Your task to perform on an android device: Go to eBay Image 0: 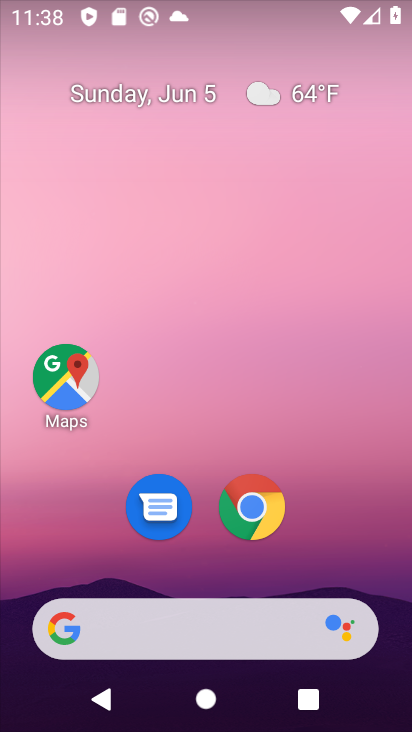
Step 0: click (253, 504)
Your task to perform on an android device: Go to eBay Image 1: 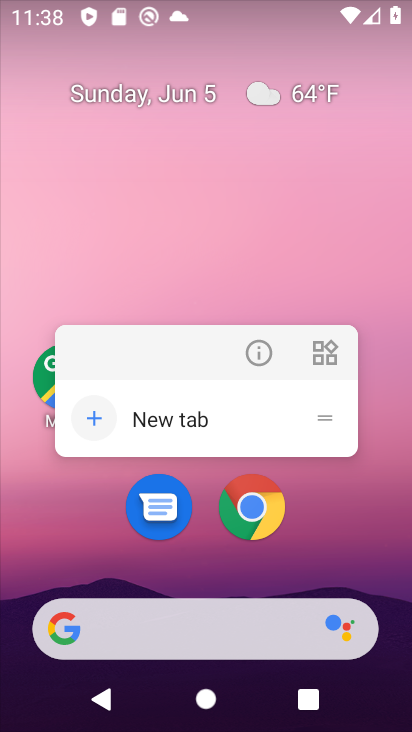
Step 1: click (312, 527)
Your task to perform on an android device: Go to eBay Image 2: 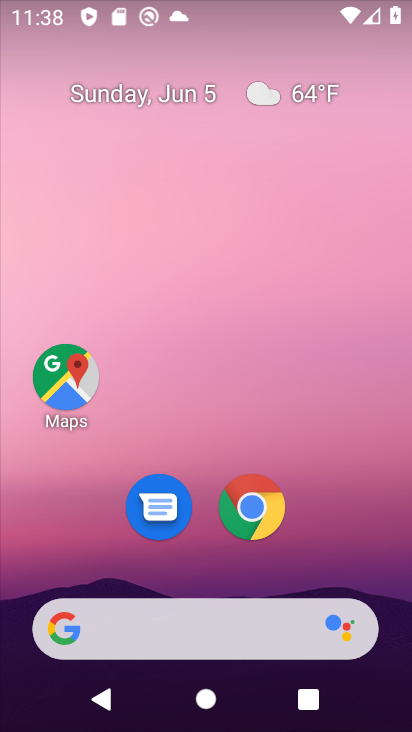
Step 2: drag from (348, 561) to (301, 106)
Your task to perform on an android device: Go to eBay Image 3: 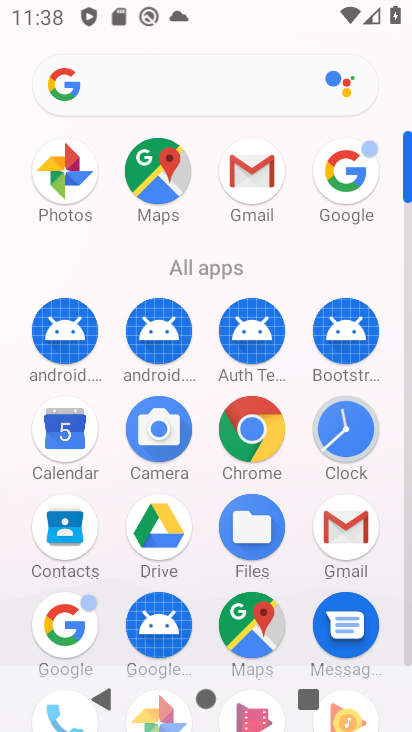
Step 3: click (252, 435)
Your task to perform on an android device: Go to eBay Image 4: 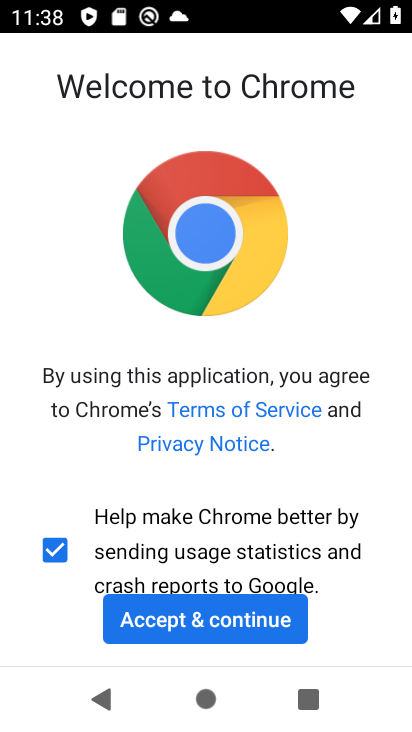
Step 4: click (250, 615)
Your task to perform on an android device: Go to eBay Image 5: 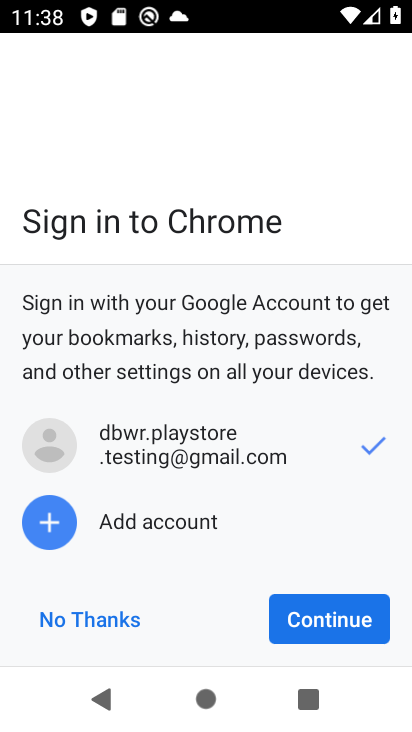
Step 5: click (305, 627)
Your task to perform on an android device: Go to eBay Image 6: 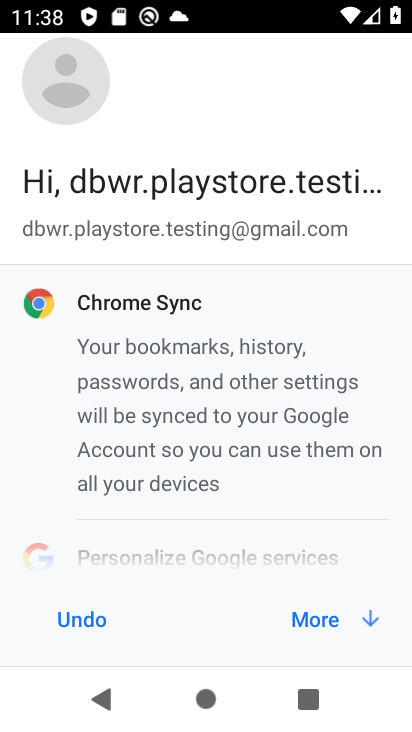
Step 6: click (326, 613)
Your task to perform on an android device: Go to eBay Image 7: 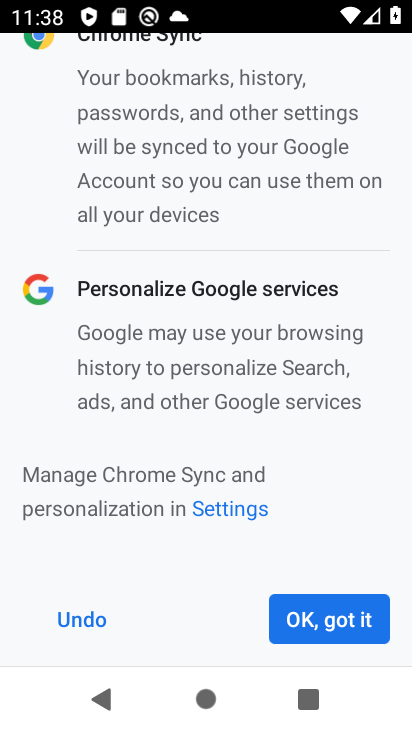
Step 7: click (327, 618)
Your task to perform on an android device: Go to eBay Image 8: 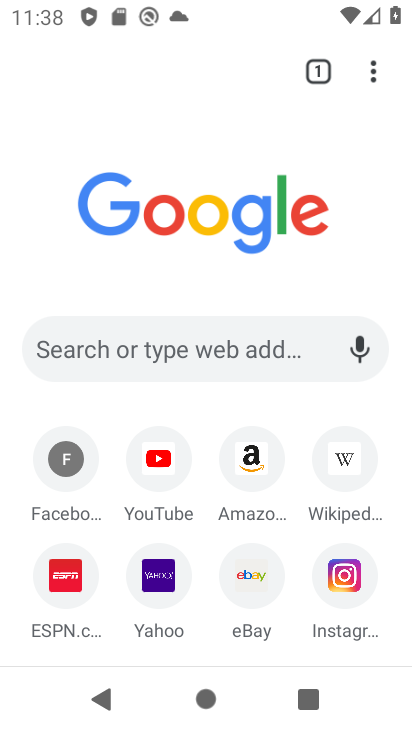
Step 8: click (251, 545)
Your task to perform on an android device: Go to eBay Image 9: 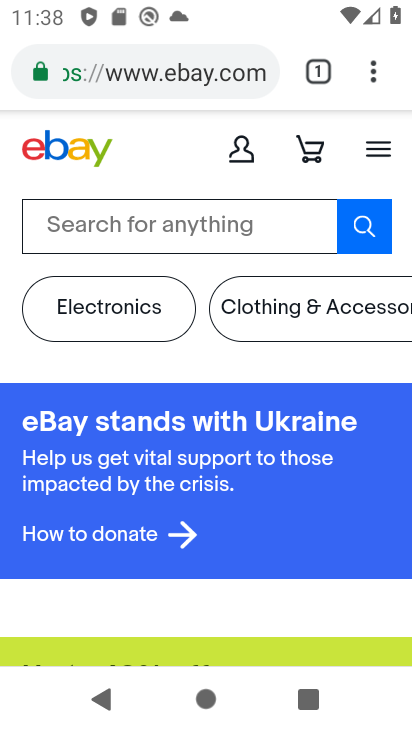
Step 9: task complete